Your task to perform on an android device: Show me popular games on the Play Store Image 0: 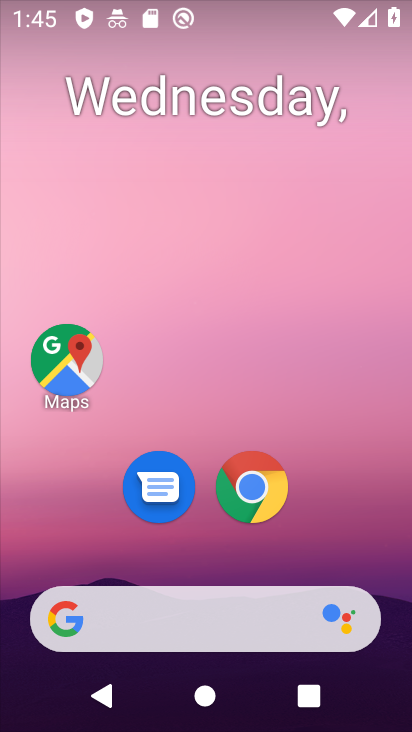
Step 0: drag from (365, 594) to (311, 0)
Your task to perform on an android device: Show me popular games on the Play Store Image 1: 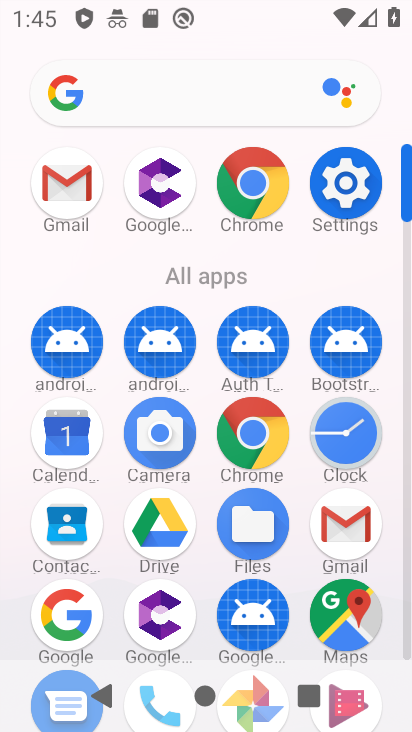
Step 1: drag from (316, 583) to (322, 148)
Your task to perform on an android device: Show me popular games on the Play Store Image 2: 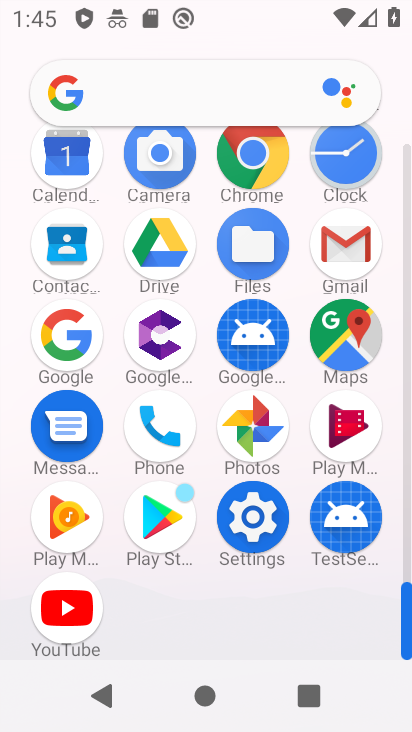
Step 2: click (149, 531)
Your task to perform on an android device: Show me popular games on the Play Store Image 3: 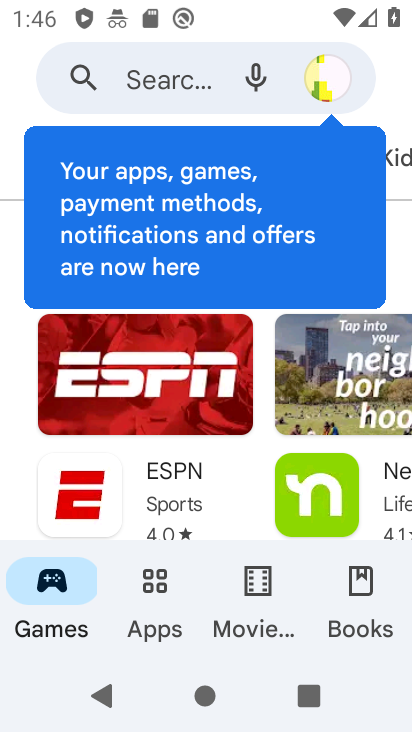
Step 3: drag from (221, 487) to (294, 11)
Your task to perform on an android device: Show me popular games on the Play Store Image 4: 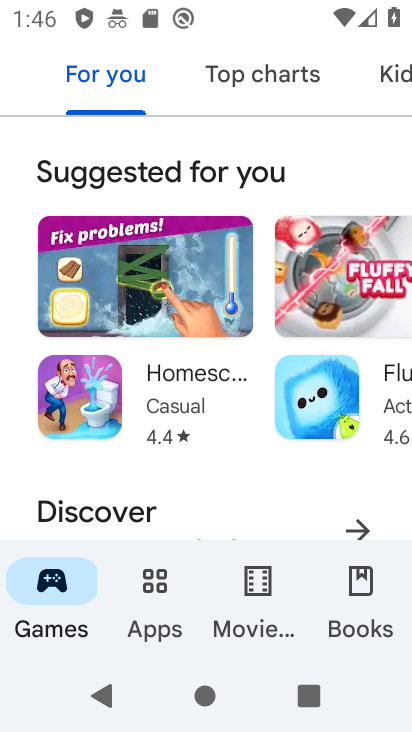
Step 4: drag from (261, 488) to (340, 72)
Your task to perform on an android device: Show me popular games on the Play Store Image 5: 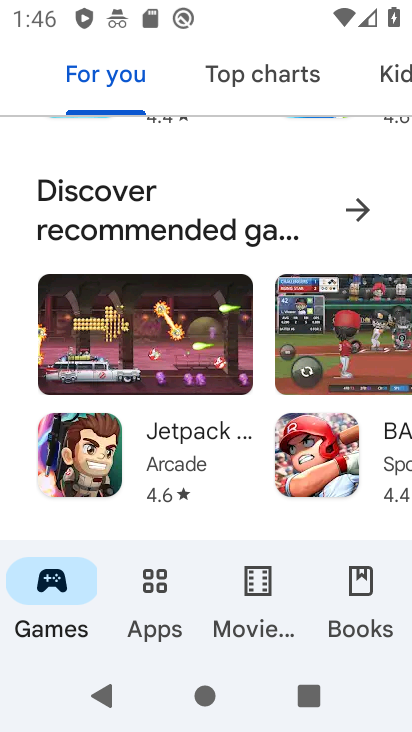
Step 5: drag from (238, 509) to (335, 16)
Your task to perform on an android device: Show me popular games on the Play Store Image 6: 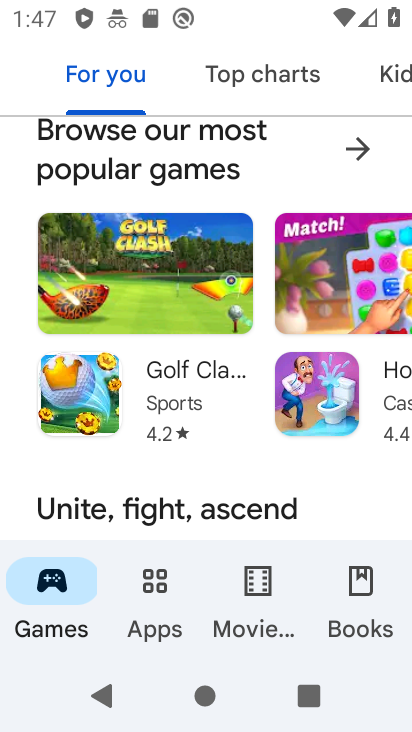
Step 6: click (350, 144)
Your task to perform on an android device: Show me popular games on the Play Store Image 7: 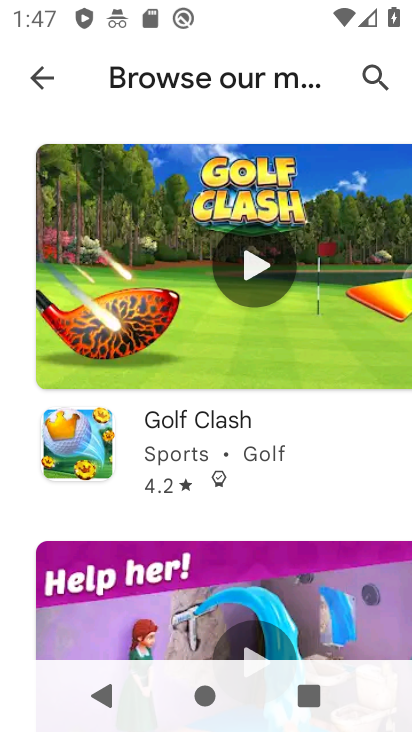
Step 7: task complete